Your task to perform on an android device: star an email in the gmail app Image 0: 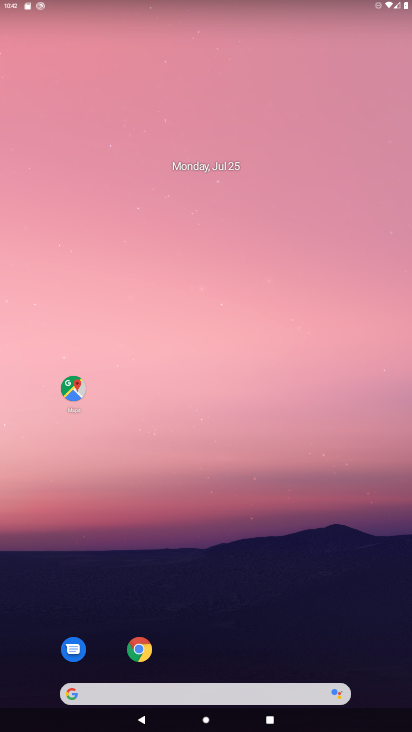
Step 0: drag from (386, 680) to (331, 65)
Your task to perform on an android device: star an email in the gmail app Image 1: 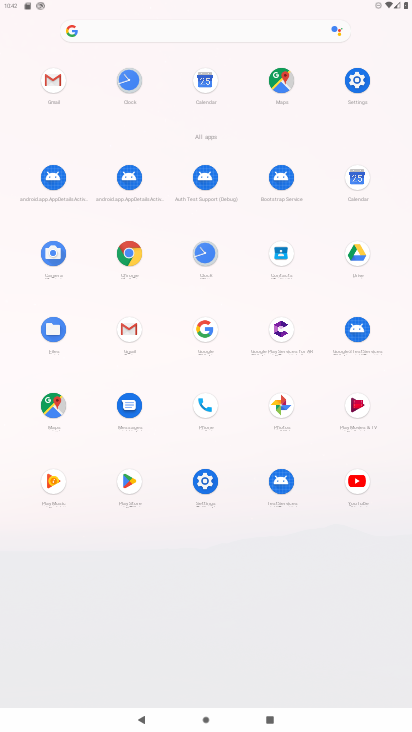
Step 1: click (127, 328)
Your task to perform on an android device: star an email in the gmail app Image 2: 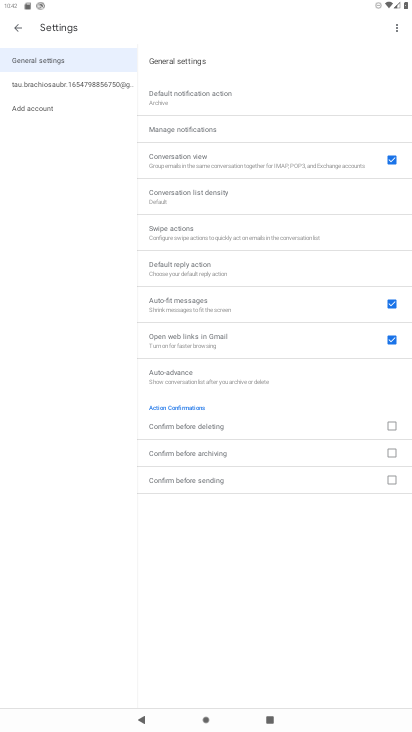
Step 2: press back button
Your task to perform on an android device: star an email in the gmail app Image 3: 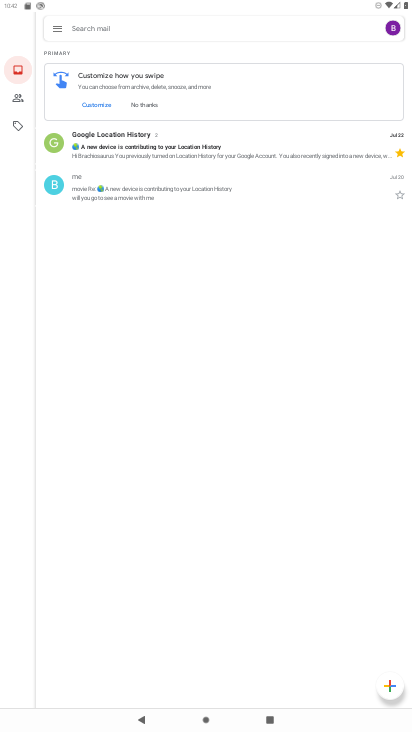
Step 3: click (398, 194)
Your task to perform on an android device: star an email in the gmail app Image 4: 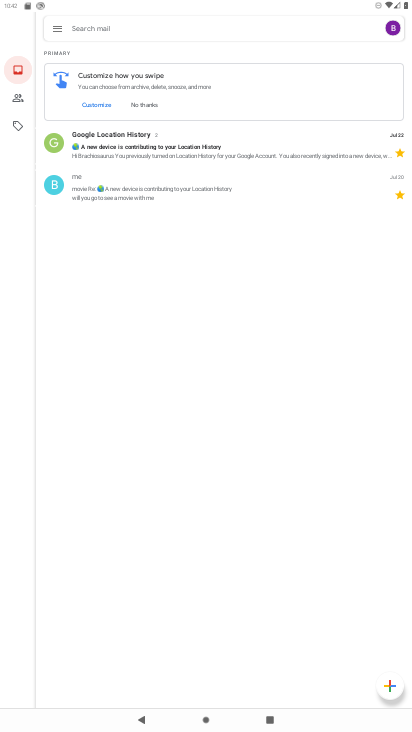
Step 4: task complete